Your task to perform on an android device: Check the weather Image 0: 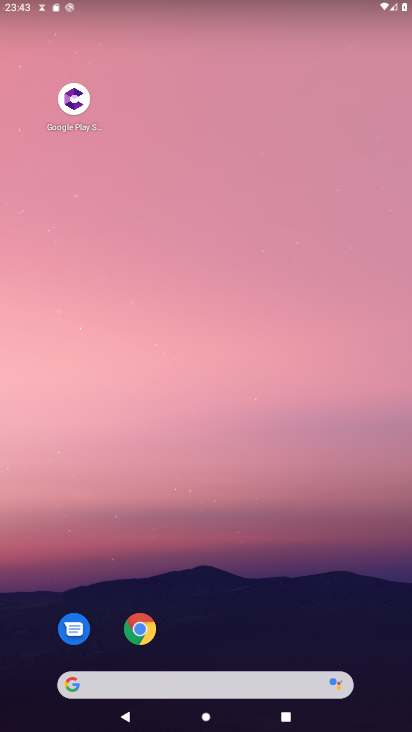
Step 0: click (205, 278)
Your task to perform on an android device: Check the weather Image 1: 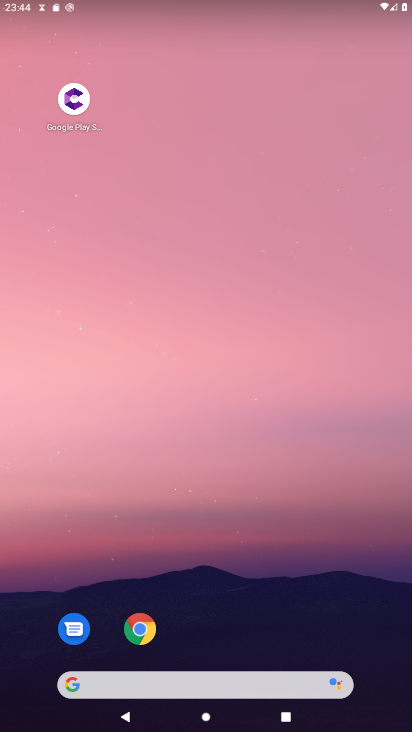
Step 1: click (128, 617)
Your task to perform on an android device: Check the weather Image 2: 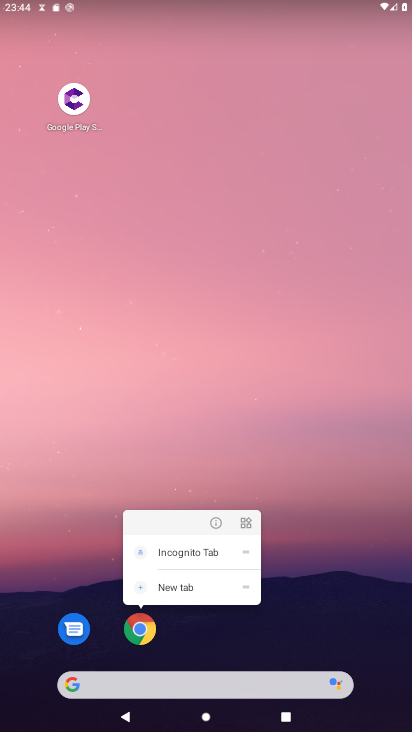
Step 2: click (141, 640)
Your task to perform on an android device: Check the weather Image 3: 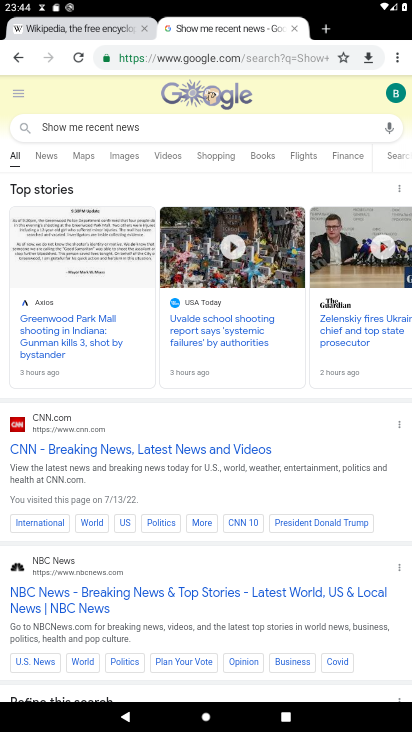
Step 3: click (324, 27)
Your task to perform on an android device: Check the weather Image 4: 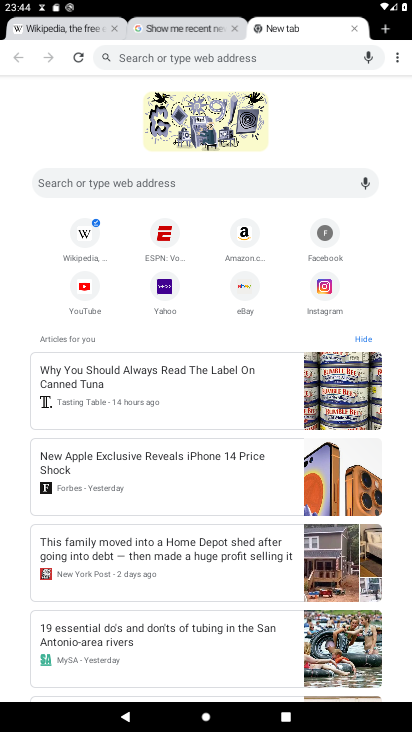
Step 4: click (204, 172)
Your task to perform on an android device: Check the weather Image 5: 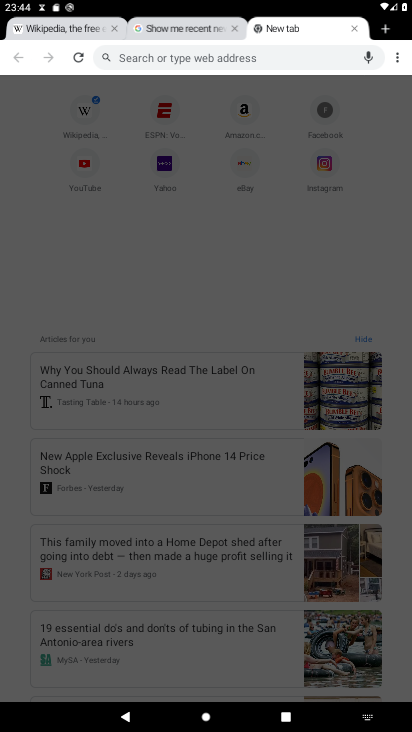
Step 5: type "Check the weather "
Your task to perform on an android device: Check the weather Image 6: 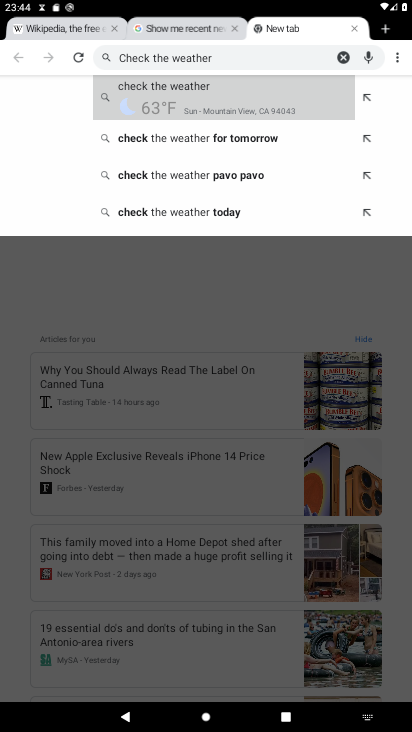
Step 6: click (183, 82)
Your task to perform on an android device: Check the weather Image 7: 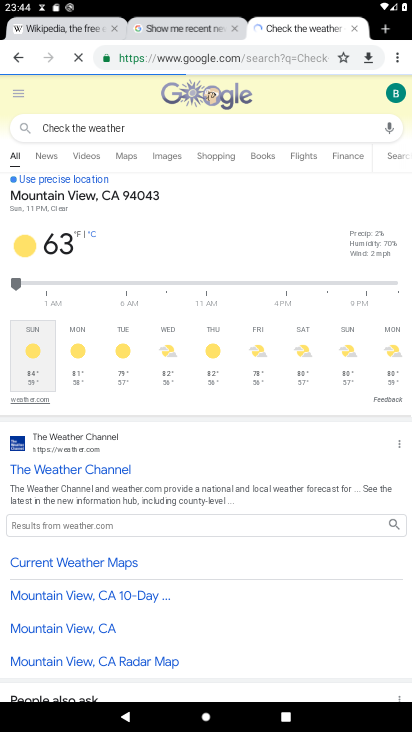
Step 7: task complete